Your task to perform on an android device: Open eBay Image 0: 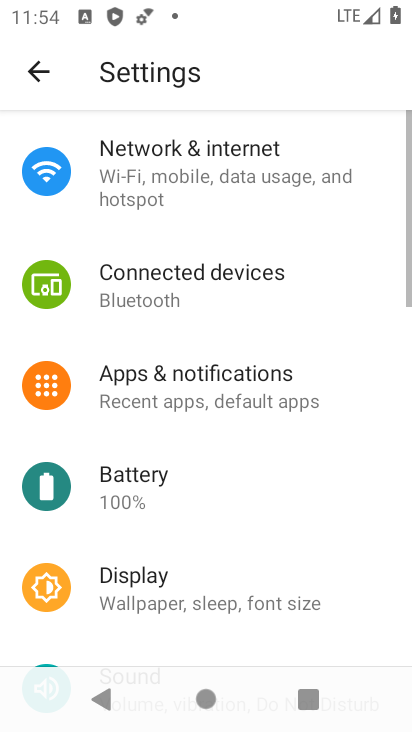
Step 0: press home button
Your task to perform on an android device: Open eBay Image 1: 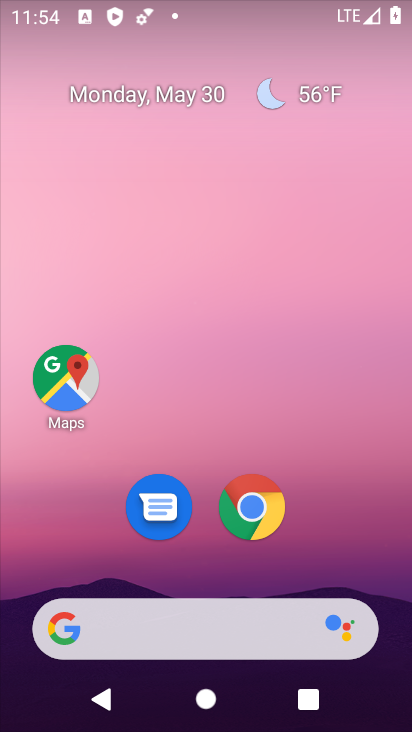
Step 1: drag from (396, 636) to (325, 34)
Your task to perform on an android device: Open eBay Image 2: 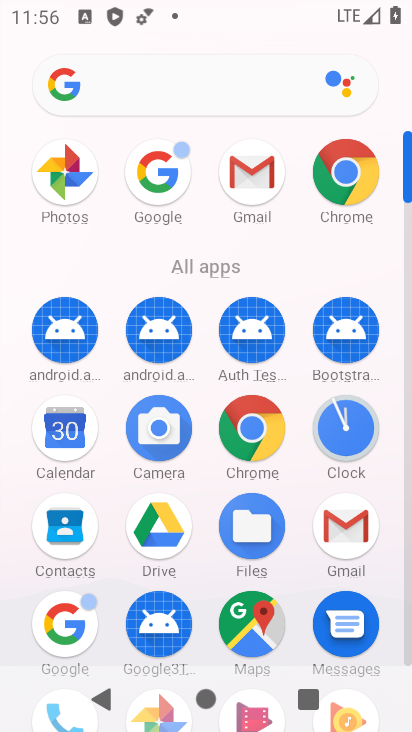
Step 2: click (64, 613)
Your task to perform on an android device: Open eBay Image 3: 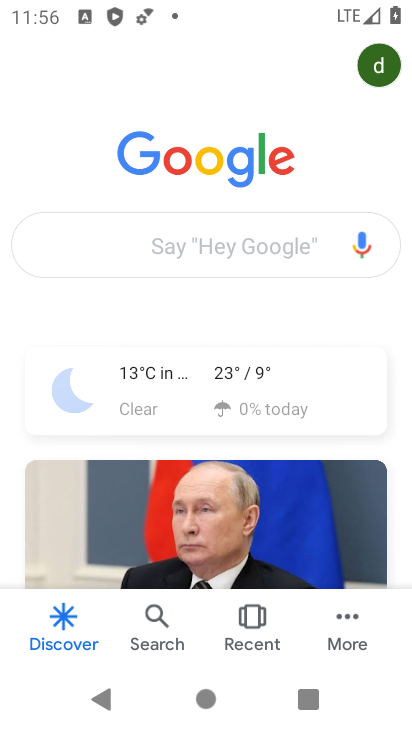
Step 3: click (179, 261)
Your task to perform on an android device: Open eBay Image 4: 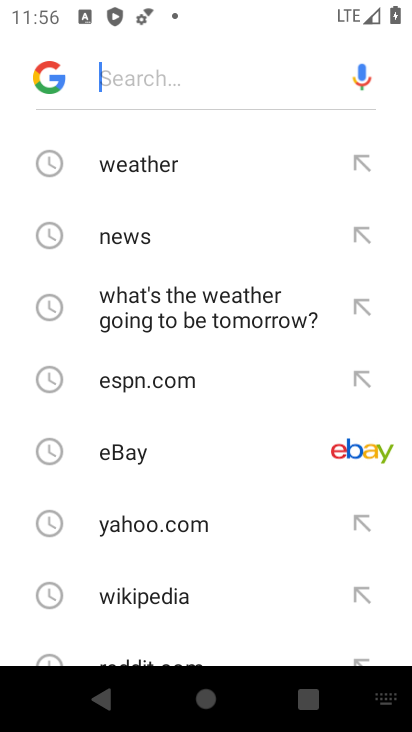
Step 4: click (175, 445)
Your task to perform on an android device: Open eBay Image 5: 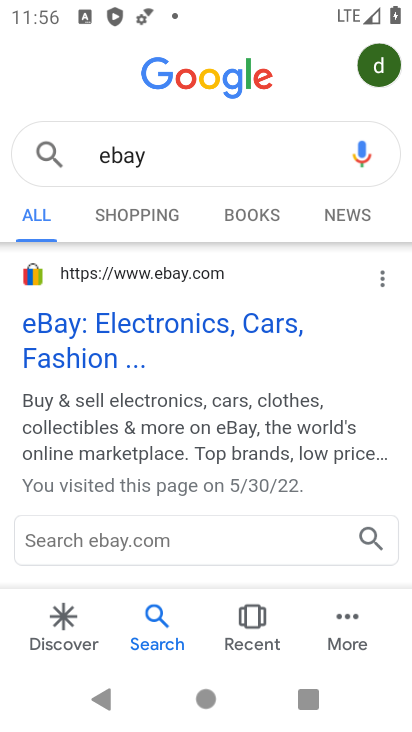
Step 5: task complete